Your task to perform on an android device: move an email to a new category in the gmail app Image 0: 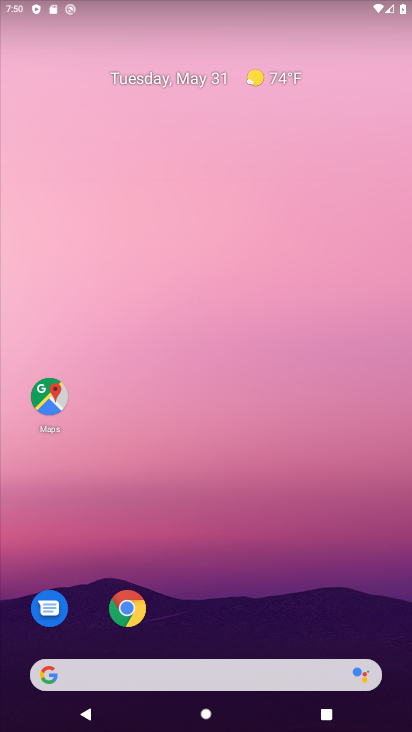
Step 0: drag from (206, 638) to (101, 1)
Your task to perform on an android device: move an email to a new category in the gmail app Image 1: 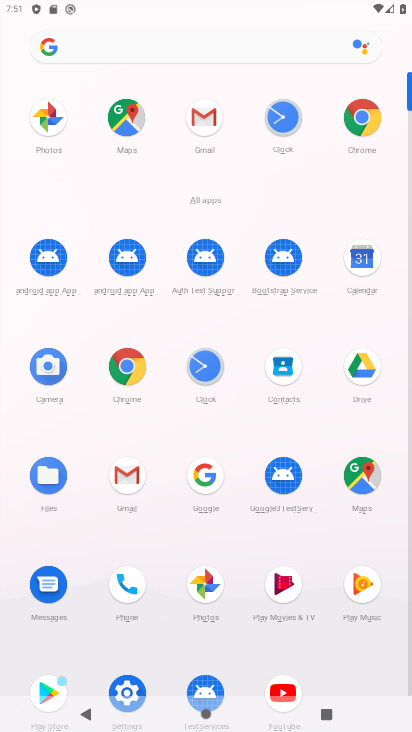
Step 1: click (118, 470)
Your task to perform on an android device: move an email to a new category in the gmail app Image 2: 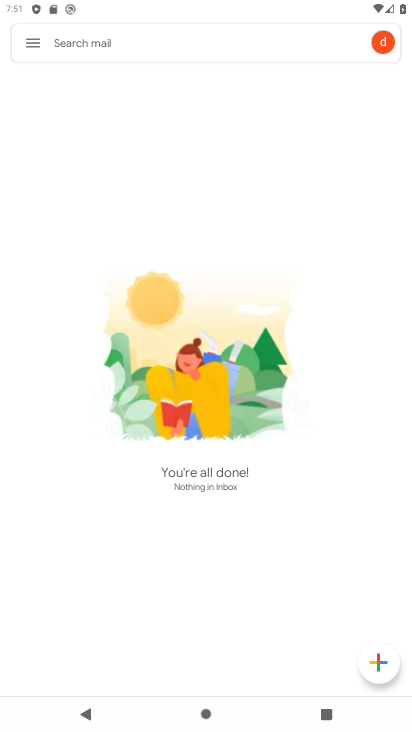
Step 2: task complete